Your task to perform on an android device: Show me recent news Image 0: 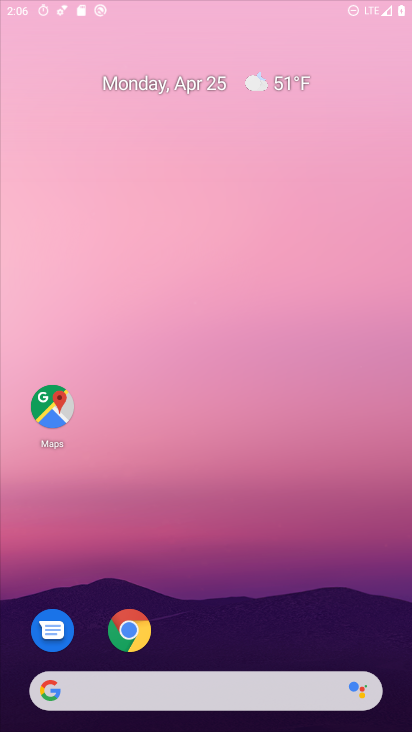
Step 0: drag from (234, 272) to (294, 49)
Your task to perform on an android device: Show me recent news Image 1: 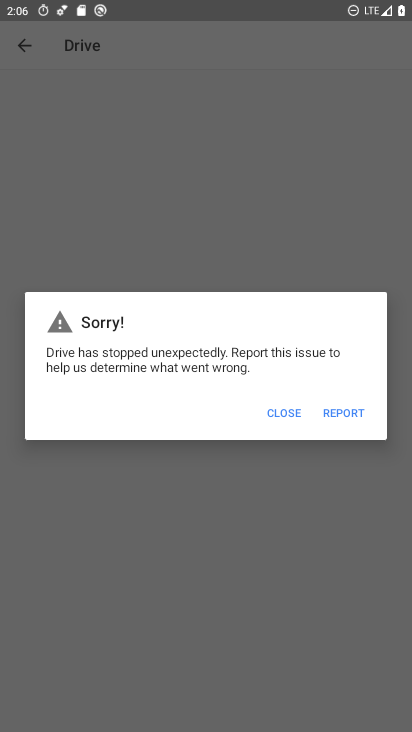
Step 1: press home button
Your task to perform on an android device: Show me recent news Image 2: 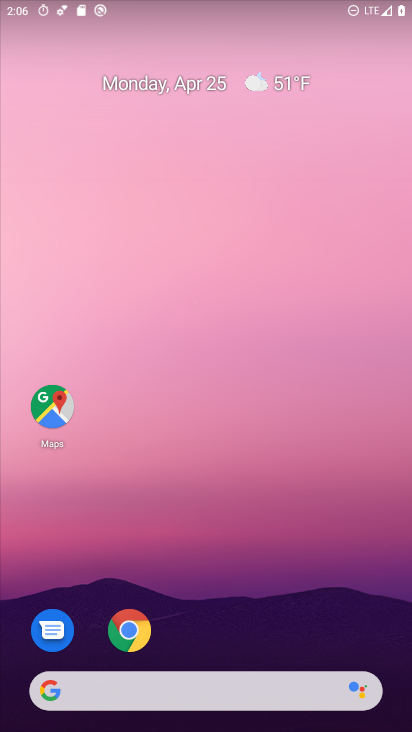
Step 2: click (139, 619)
Your task to perform on an android device: Show me recent news Image 3: 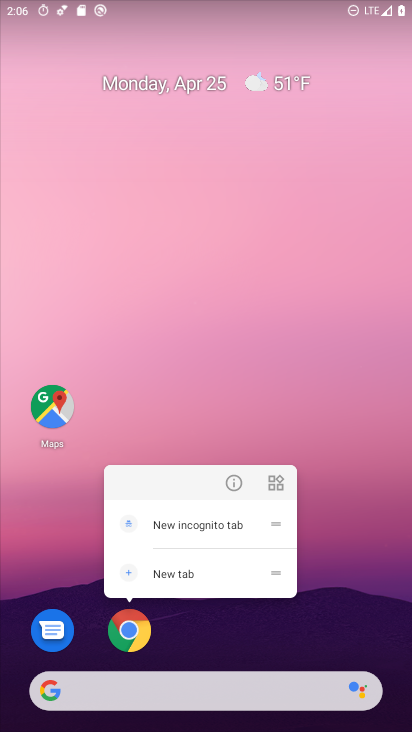
Step 3: click (241, 475)
Your task to perform on an android device: Show me recent news Image 4: 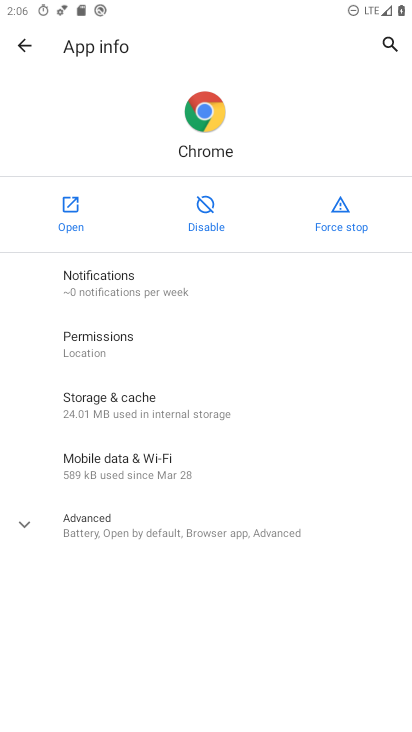
Step 4: click (76, 222)
Your task to perform on an android device: Show me recent news Image 5: 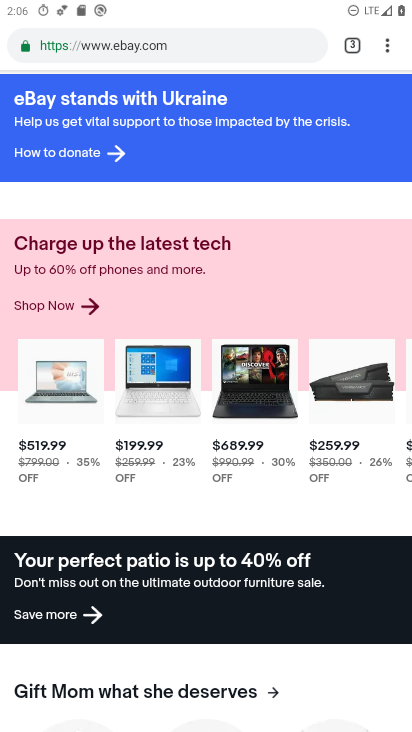
Step 5: drag from (266, 137) to (314, 603)
Your task to perform on an android device: Show me recent news Image 6: 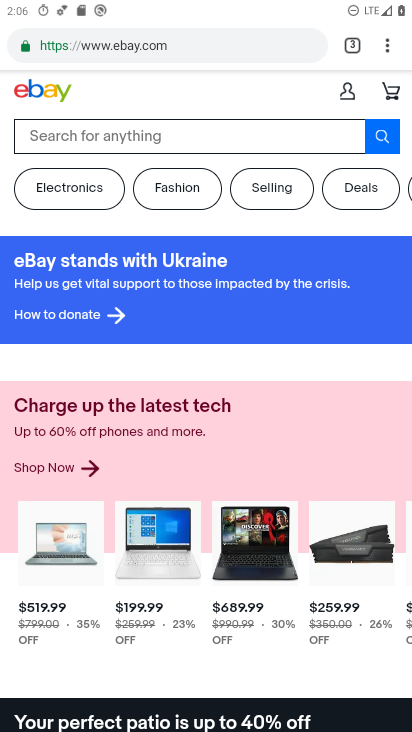
Step 6: click (252, 46)
Your task to perform on an android device: Show me recent news Image 7: 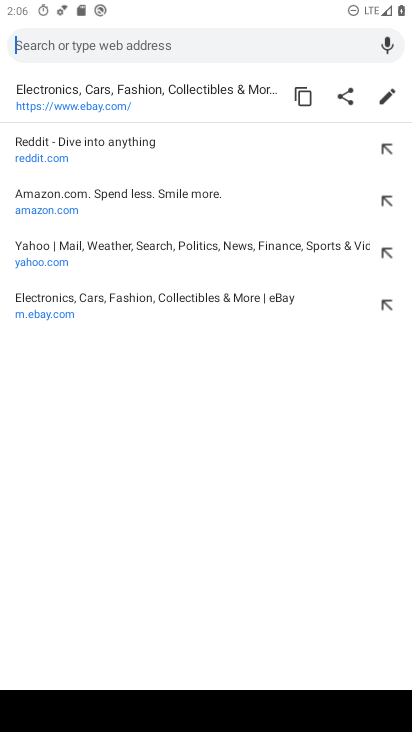
Step 7: type "news"
Your task to perform on an android device: Show me recent news Image 8: 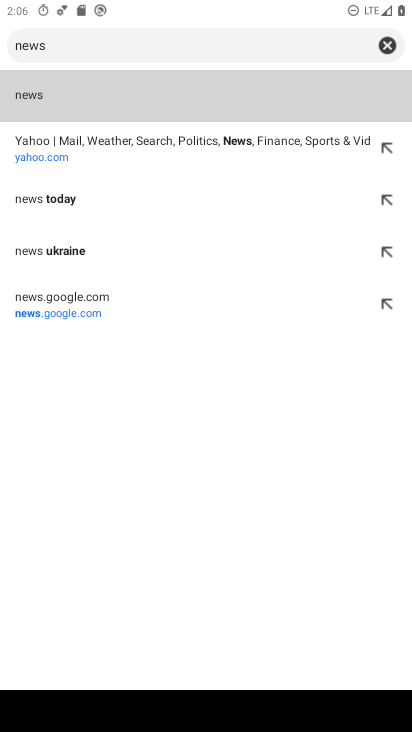
Step 8: click (48, 100)
Your task to perform on an android device: Show me recent news Image 9: 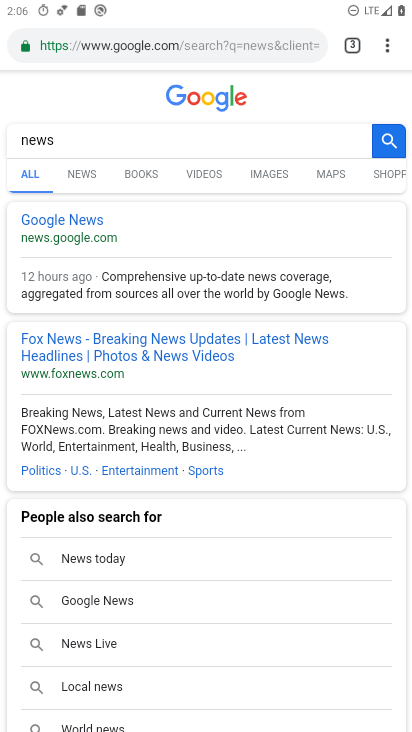
Step 9: click (133, 346)
Your task to perform on an android device: Show me recent news Image 10: 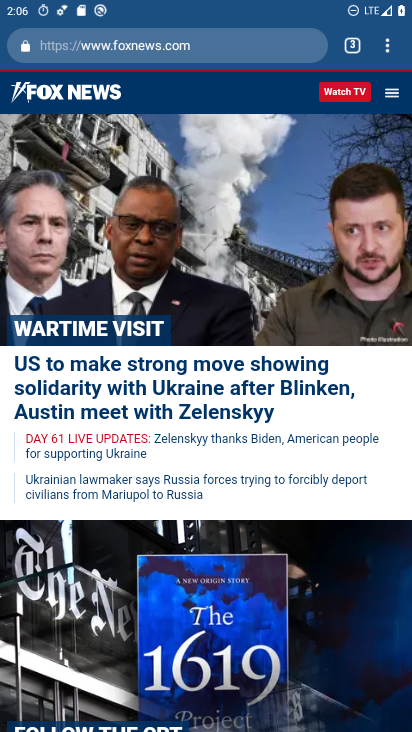
Step 10: task complete